Your task to perform on an android device: Search for Mexican restaurants on Maps Image 0: 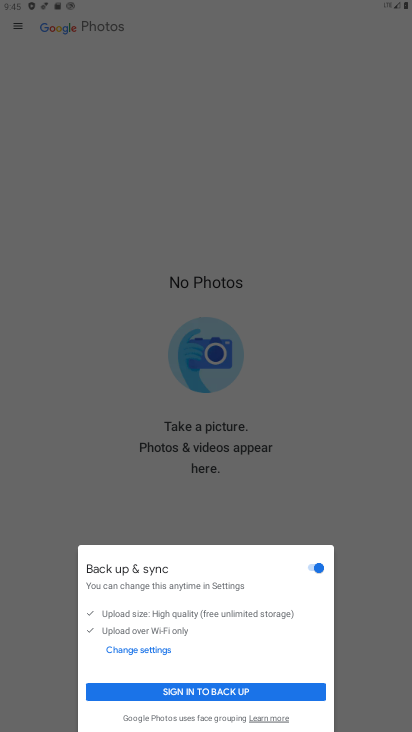
Step 0: press home button
Your task to perform on an android device: Search for Mexican restaurants on Maps Image 1: 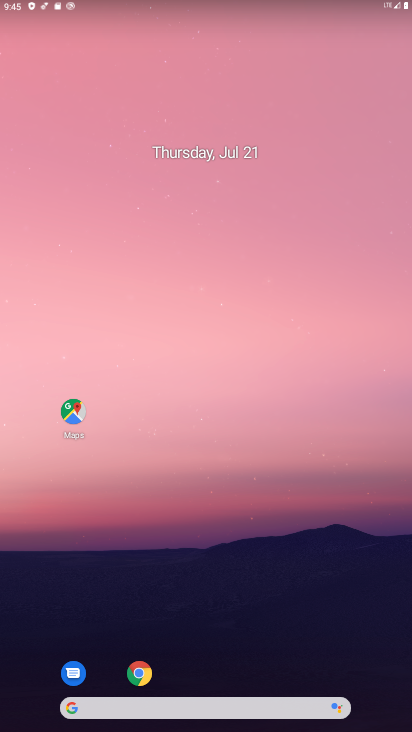
Step 1: drag from (205, 704) to (255, 194)
Your task to perform on an android device: Search for Mexican restaurants on Maps Image 2: 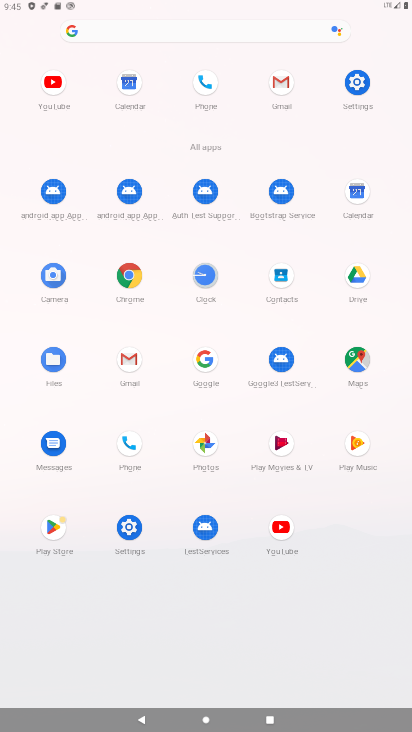
Step 2: click (359, 357)
Your task to perform on an android device: Search for Mexican restaurants on Maps Image 3: 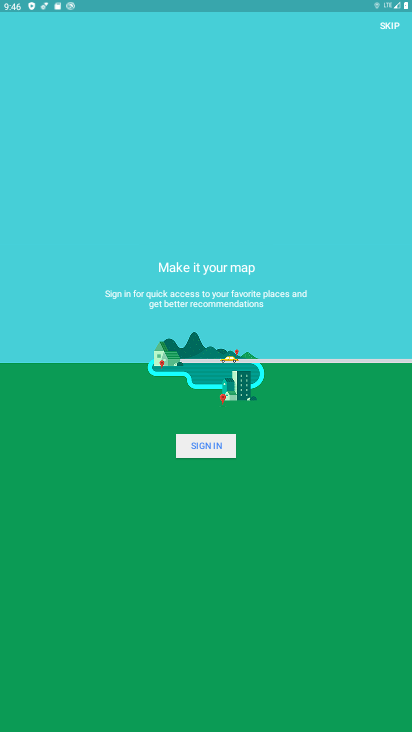
Step 3: task complete